Your task to perform on an android device: Open settings on Google Maps Image 0: 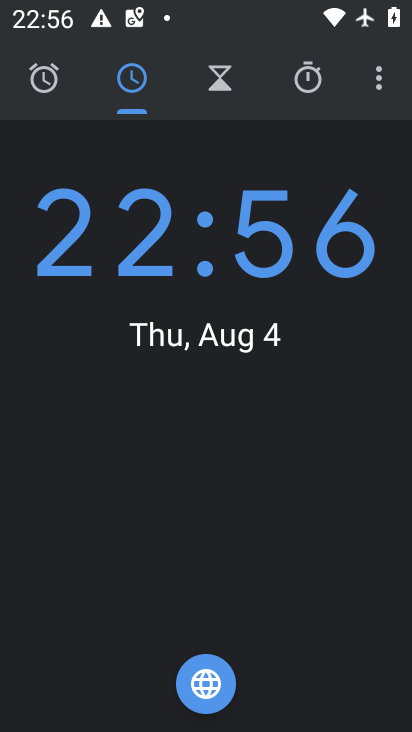
Step 0: press home button
Your task to perform on an android device: Open settings on Google Maps Image 1: 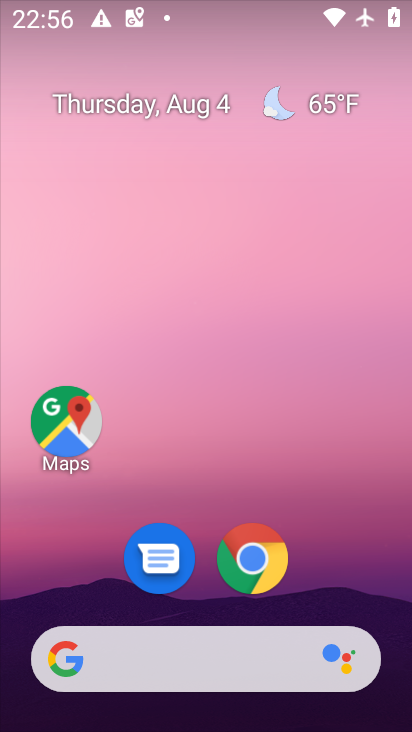
Step 1: drag from (382, 554) to (316, 73)
Your task to perform on an android device: Open settings on Google Maps Image 2: 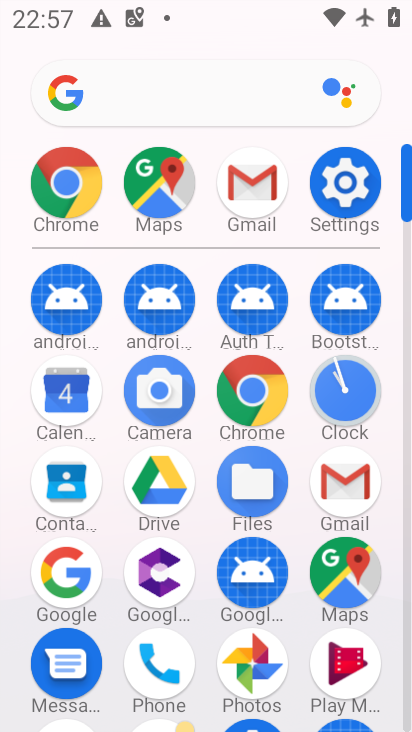
Step 2: click (348, 572)
Your task to perform on an android device: Open settings on Google Maps Image 3: 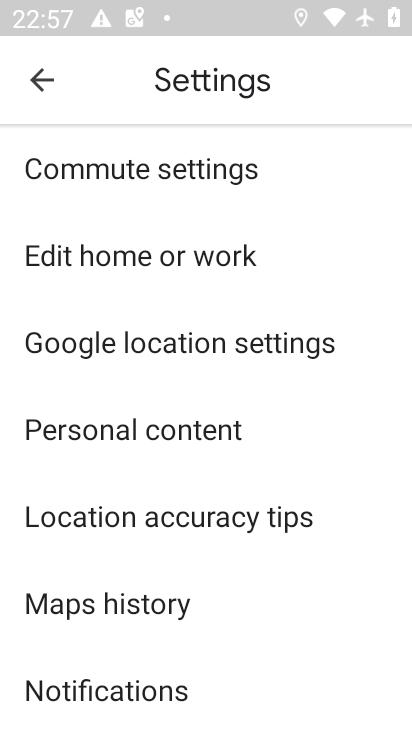
Step 3: task complete